Your task to perform on an android device: open app "McDonald's" (install if not already installed) Image 0: 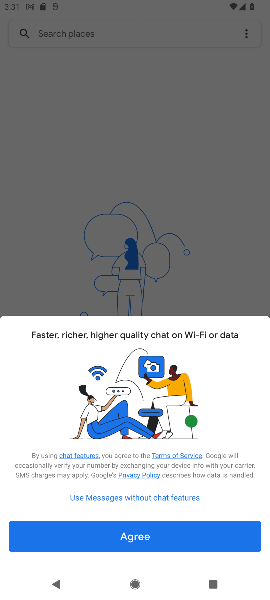
Step 0: press home button
Your task to perform on an android device: open app "McDonald's" (install if not already installed) Image 1: 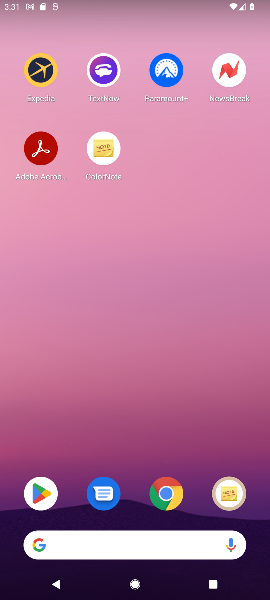
Step 1: click (42, 490)
Your task to perform on an android device: open app "McDonald's" (install if not already installed) Image 2: 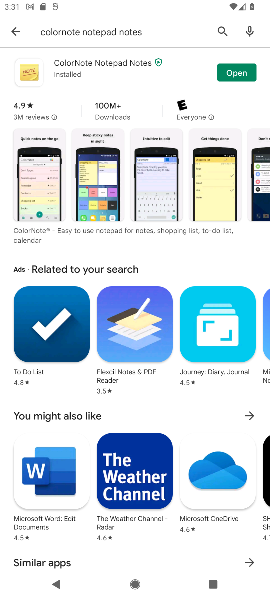
Step 2: click (220, 28)
Your task to perform on an android device: open app "McDonald's" (install if not already installed) Image 3: 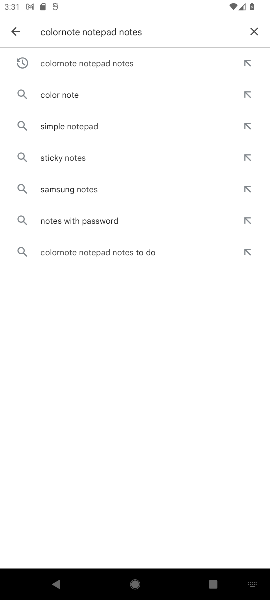
Step 3: click (255, 28)
Your task to perform on an android device: open app "McDonald's" (install if not already installed) Image 4: 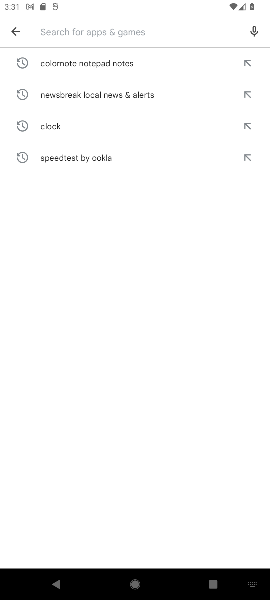
Step 4: type "mcdonald"
Your task to perform on an android device: open app "McDonald's" (install if not already installed) Image 5: 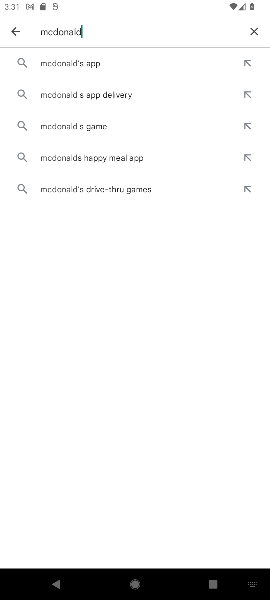
Step 5: click (73, 63)
Your task to perform on an android device: open app "McDonald's" (install if not already installed) Image 6: 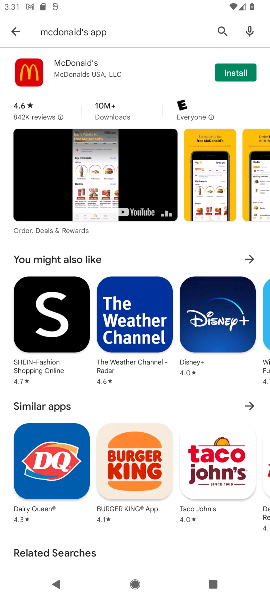
Step 6: click (232, 75)
Your task to perform on an android device: open app "McDonald's" (install if not already installed) Image 7: 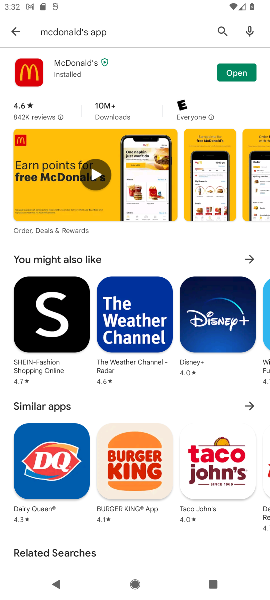
Step 7: click (229, 72)
Your task to perform on an android device: open app "McDonald's" (install if not already installed) Image 8: 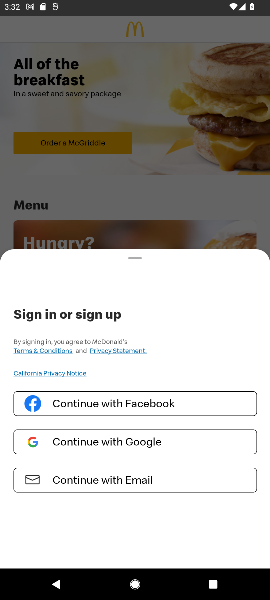
Step 8: task complete